Your task to perform on an android device: What's the weather today? Image 0: 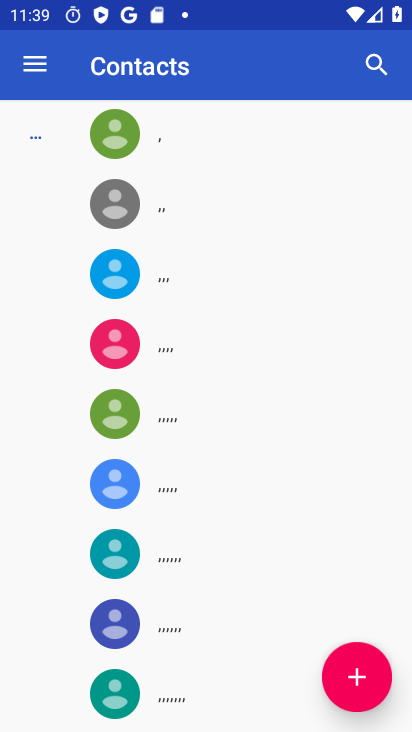
Step 0: press back button
Your task to perform on an android device: What's the weather today? Image 1: 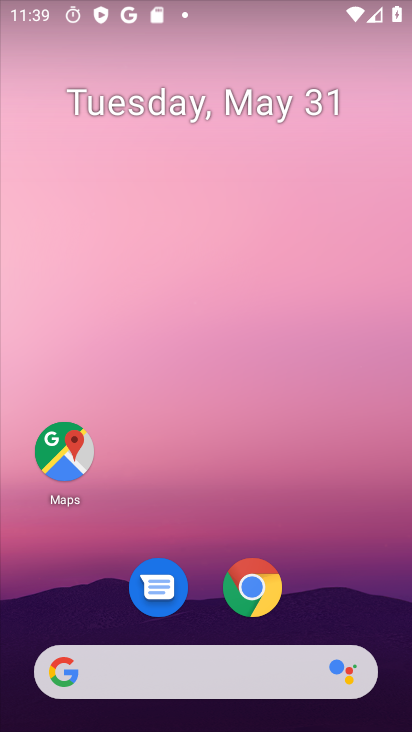
Step 1: drag from (331, 592) to (233, 138)
Your task to perform on an android device: What's the weather today? Image 2: 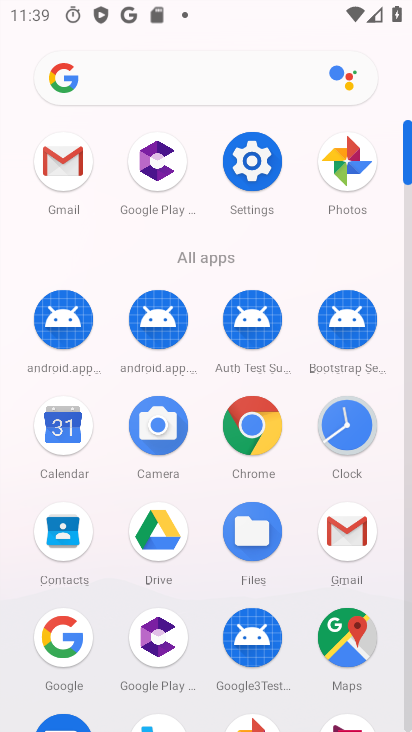
Step 2: drag from (201, 495) to (212, 290)
Your task to perform on an android device: What's the weather today? Image 3: 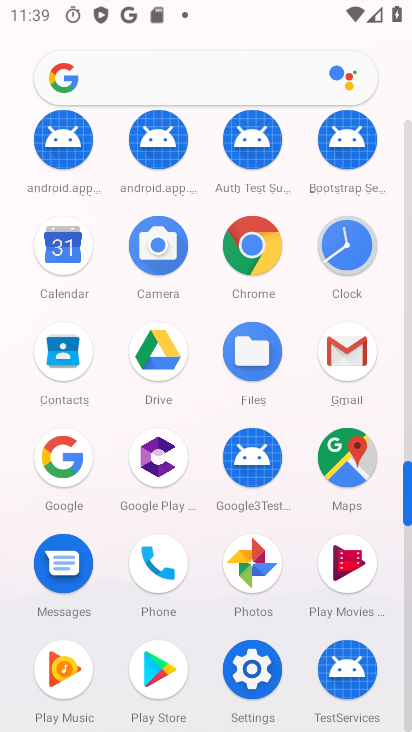
Step 3: click (58, 453)
Your task to perform on an android device: What's the weather today? Image 4: 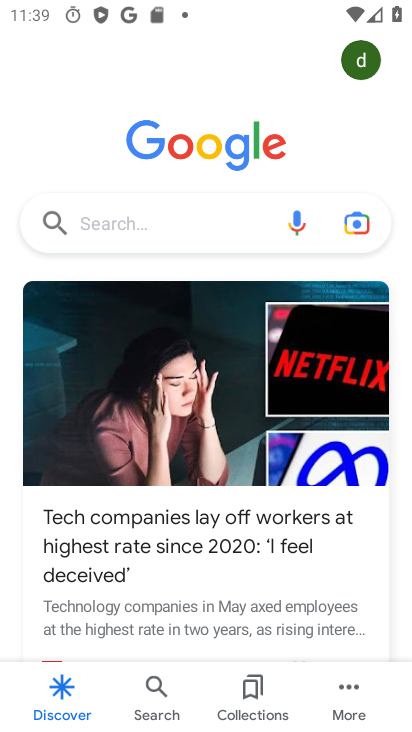
Step 4: click (163, 223)
Your task to perform on an android device: What's the weather today? Image 5: 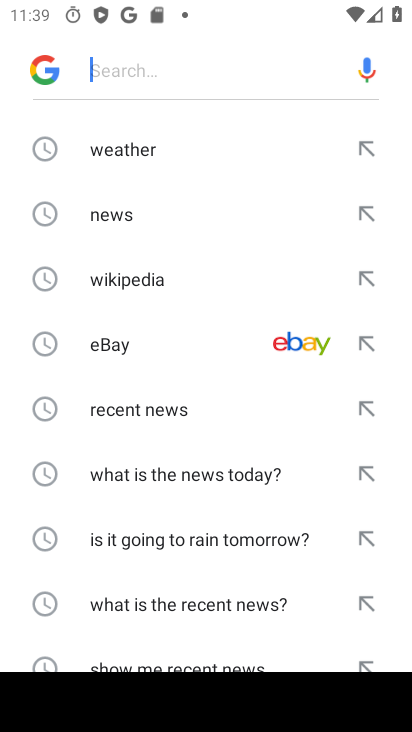
Step 5: click (127, 151)
Your task to perform on an android device: What's the weather today? Image 6: 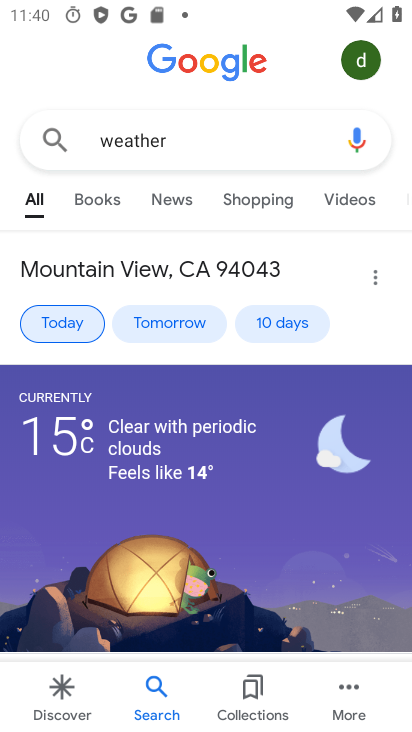
Step 6: task complete